Your task to perform on an android device: find photos in the google photos app Image 0: 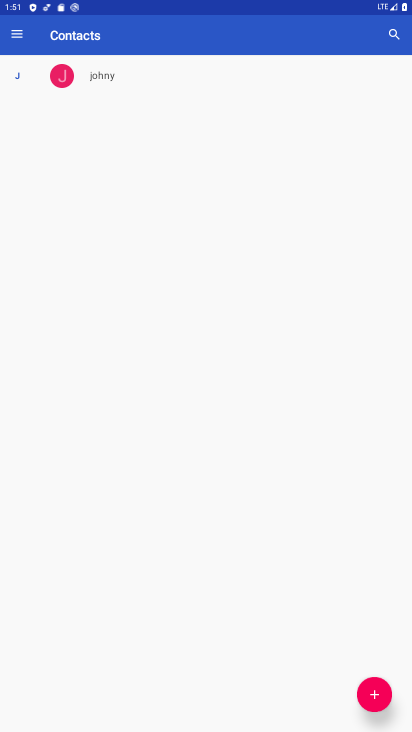
Step 0: press home button
Your task to perform on an android device: find photos in the google photos app Image 1: 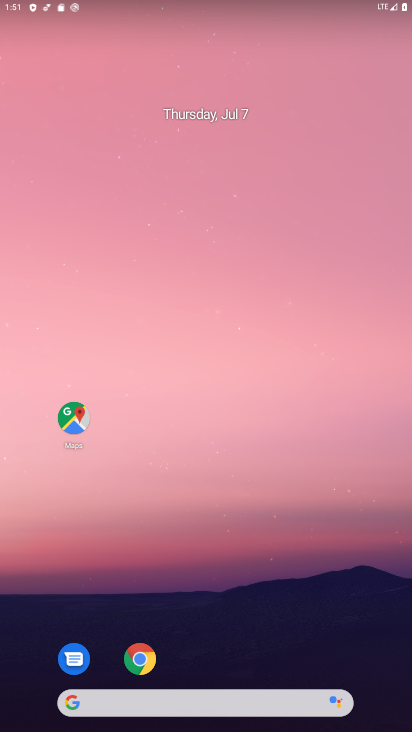
Step 1: drag from (270, 604) to (209, 52)
Your task to perform on an android device: find photos in the google photos app Image 2: 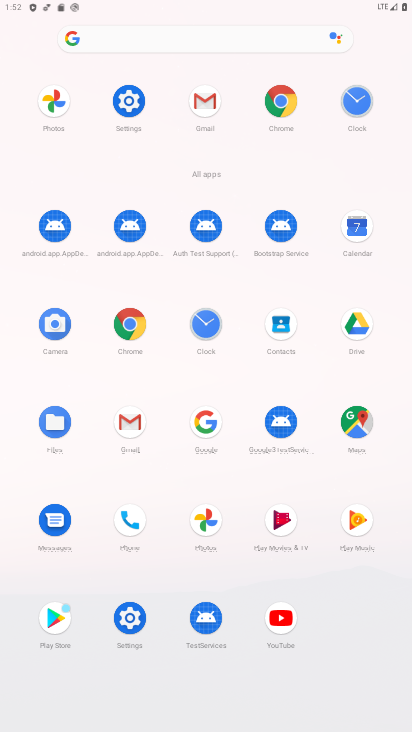
Step 2: click (205, 517)
Your task to perform on an android device: find photos in the google photos app Image 3: 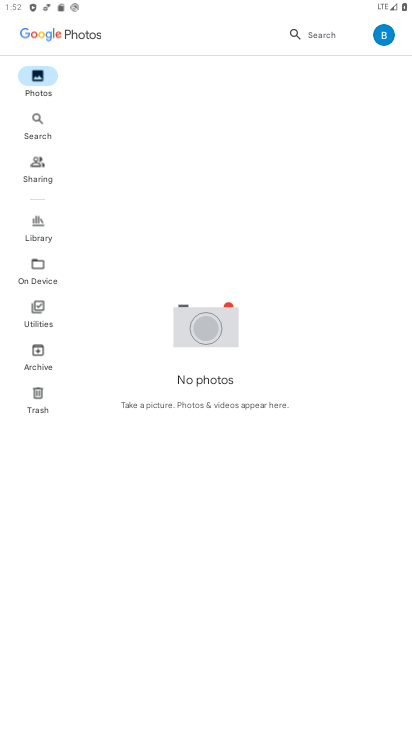
Step 3: click (39, 123)
Your task to perform on an android device: find photos in the google photos app Image 4: 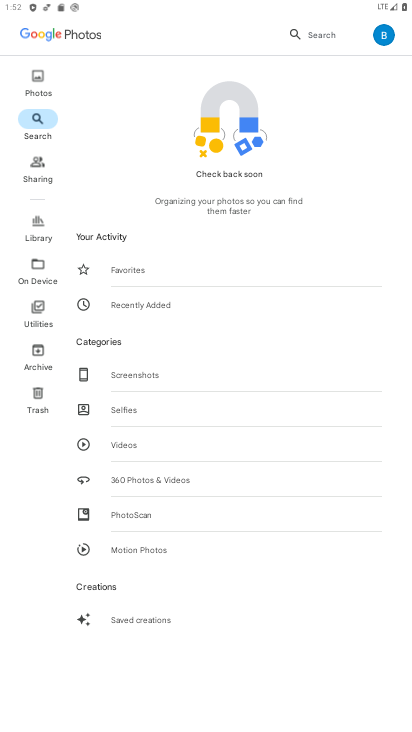
Step 4: click (130, 273)
Your task to perform on an android device: find photos in the google photos app Image 5: 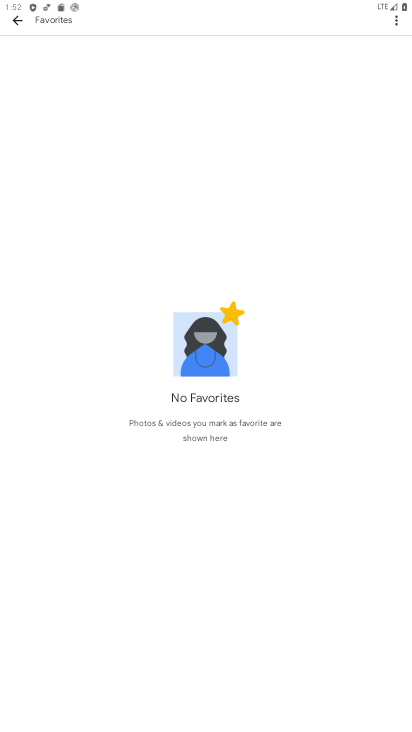
Step 5: press back button
Your task to perform on an android device: find photos in the google photos app Image 6: 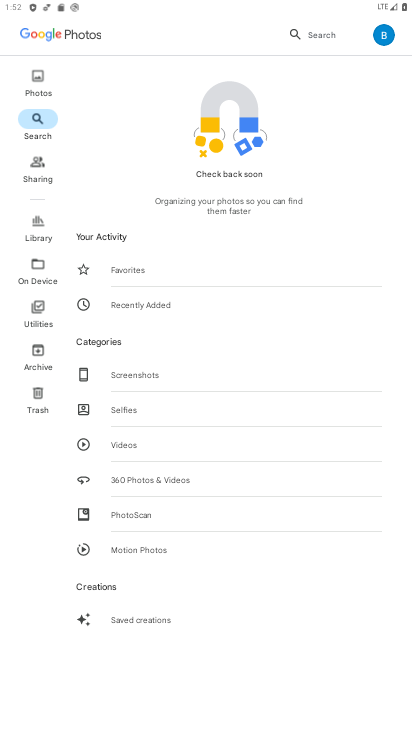
Step 6: click (153, 306)
Your task to perform on an android device: find photos in the google photos app Image 7: 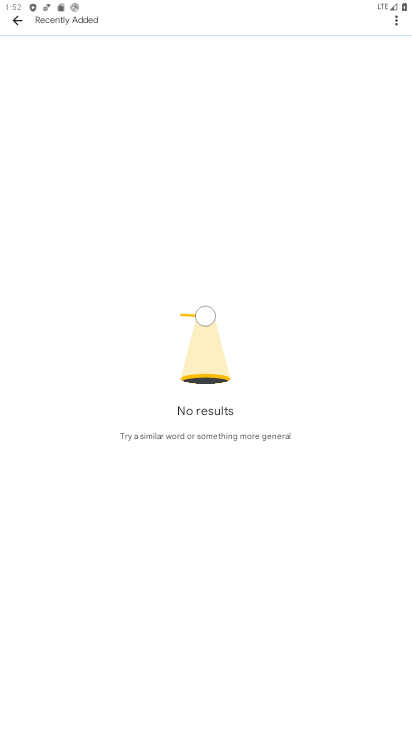
Step 7: press back button
Your task to perform on an android device: find photos in the google photos app Image 8: 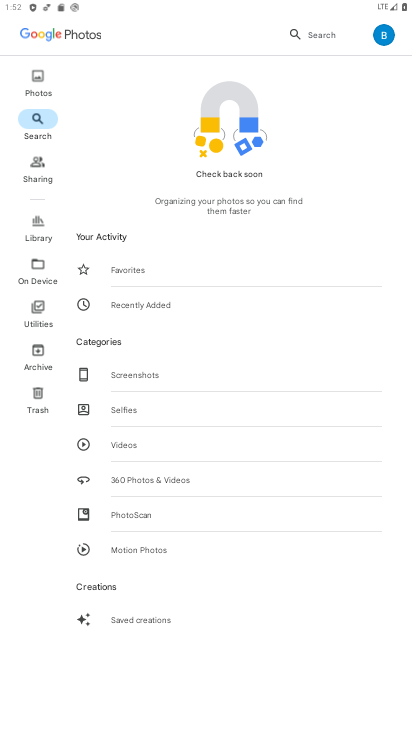
Step 8: click (144, 620)
Your task to perform on an android device: find photos in the google photos app Image 9: 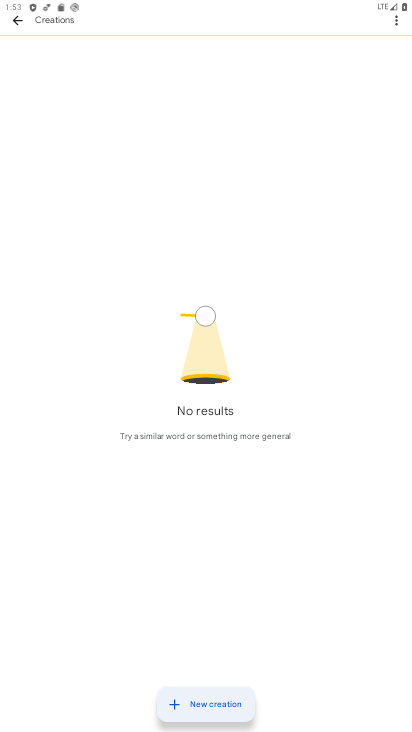
Step 9: press back button
Your task to perform on an android device: find photos in the google photos app Image 10: 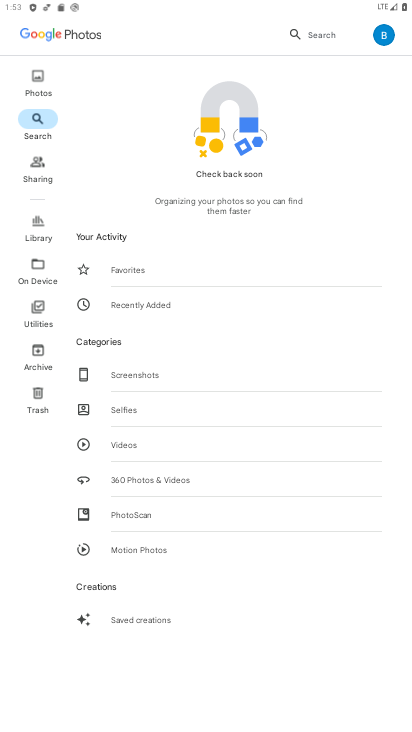
Step 10: click (44, 83)
Your task to perform on an android device: find photos in the google photos app Image 11: 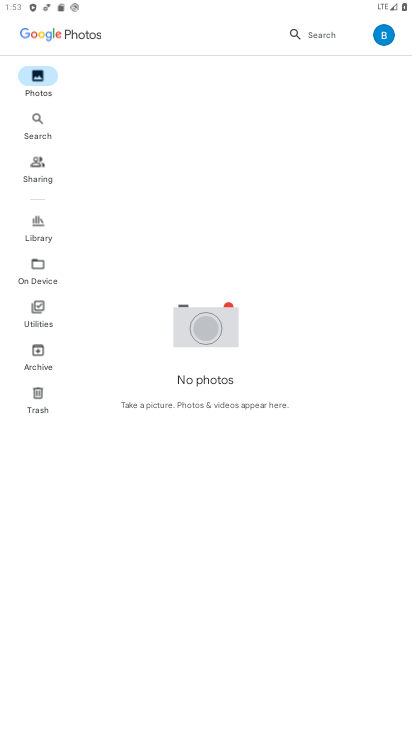
Step 11: task complete